Your task to perform on an android device: check google app version Image 0: 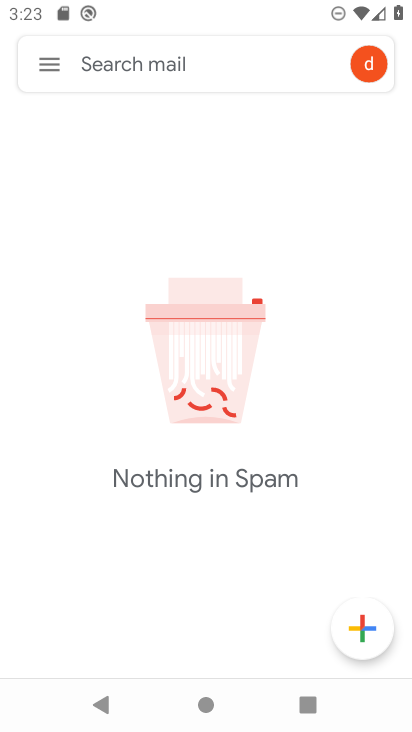
Step 0: press home button
Your task to perform on an android device: check google app version Image 1: 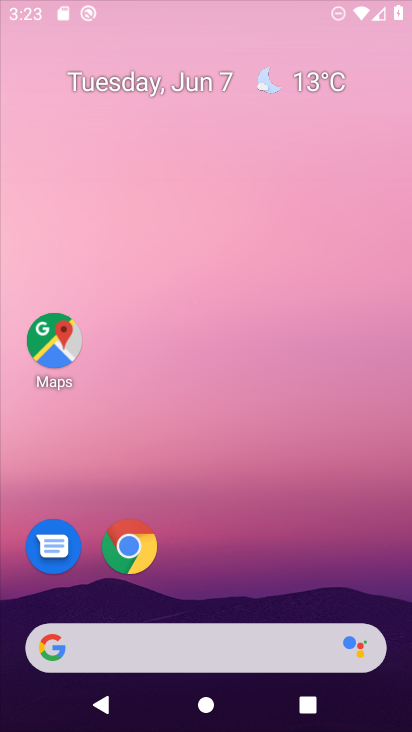
Step 1: drag from (29, 593) to (341, 202)
Your task to perform on an android device: check google app version Image 2: 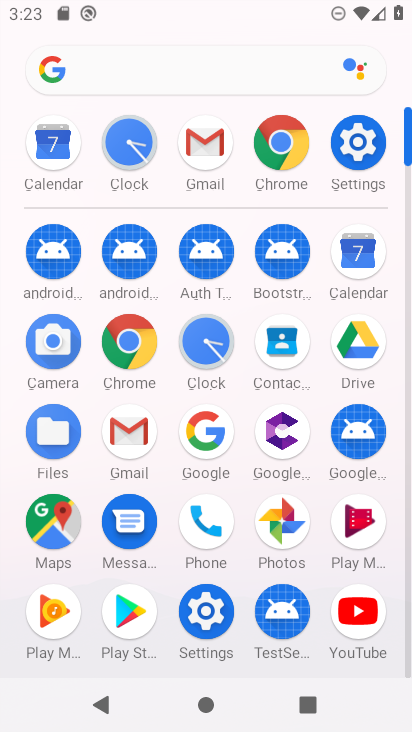
Step 2: click (291, 359)
Your task to perform on an android device: check google app version Image 3: 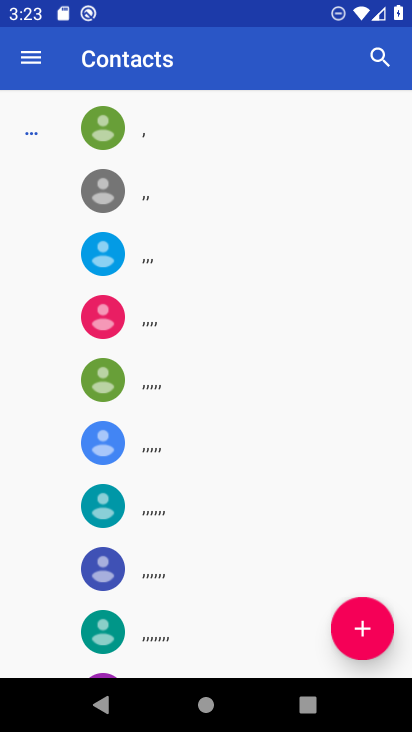
Step 3: press home button
Your task to perform on an android device: check google app version Image 4: 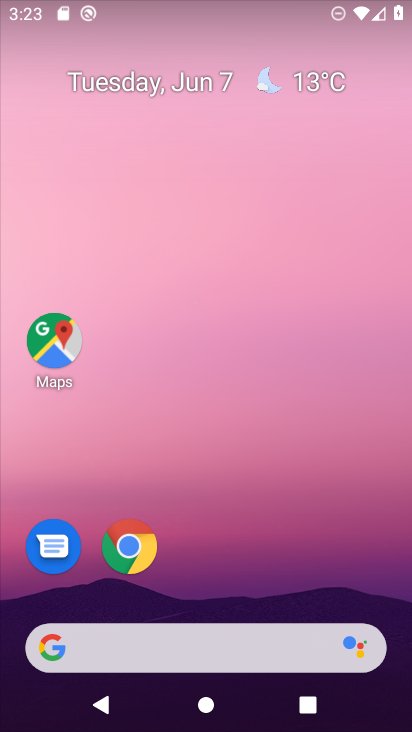
Step 4: drag from (22, 603) to (243, 150)
Your task to perform on an android device: check google app version Image 5: 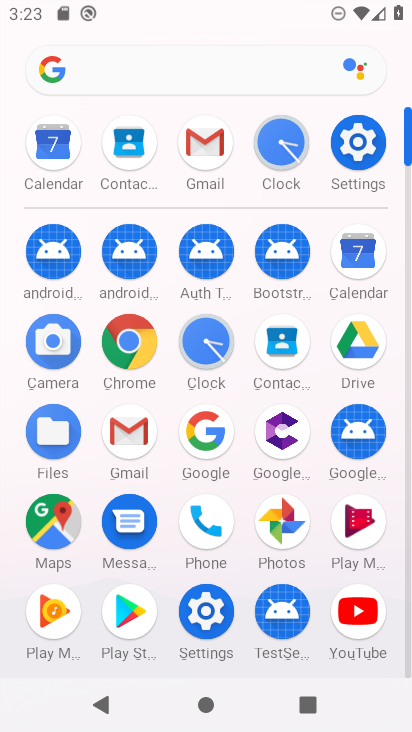
Step 5: click (263, 617)
Your task to perform on an android device: check google app version Image 6: 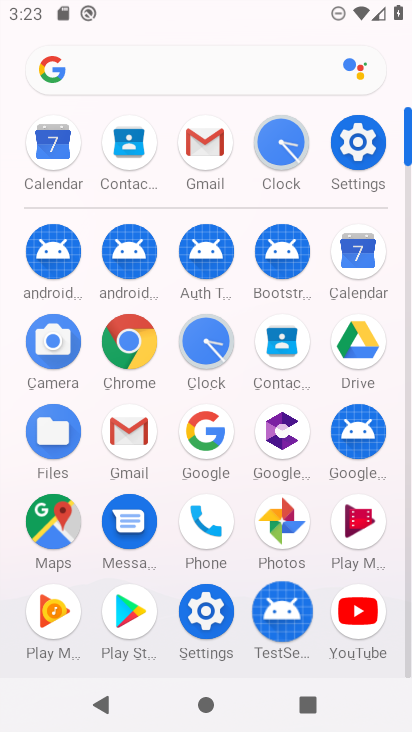
Step 6: click (258, 388)
Your task to perform on an android device: check google app version Image 7: 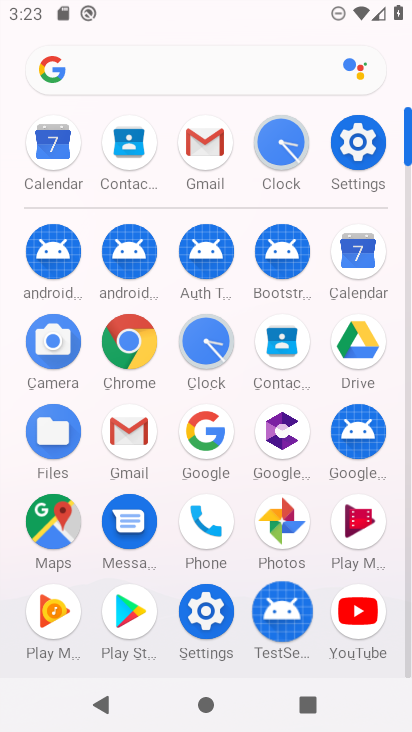
Step 7: click (355, 436)
Your task to perform on an android device: check google app version Image 8: 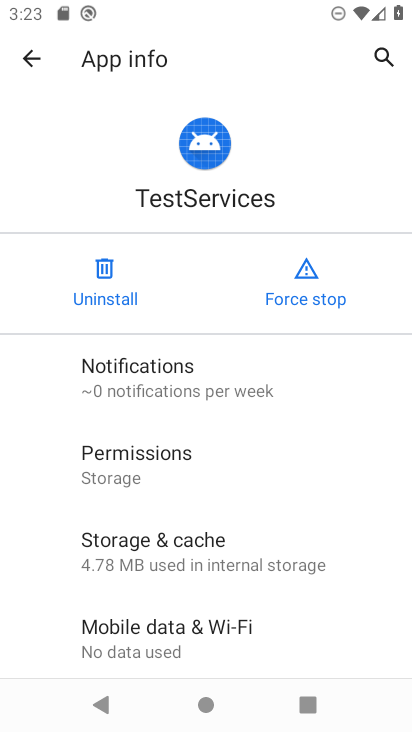
Step 8: drag from (14, 575) to (269, 188)
Your task to perform on an android device: check google app version Image 9: 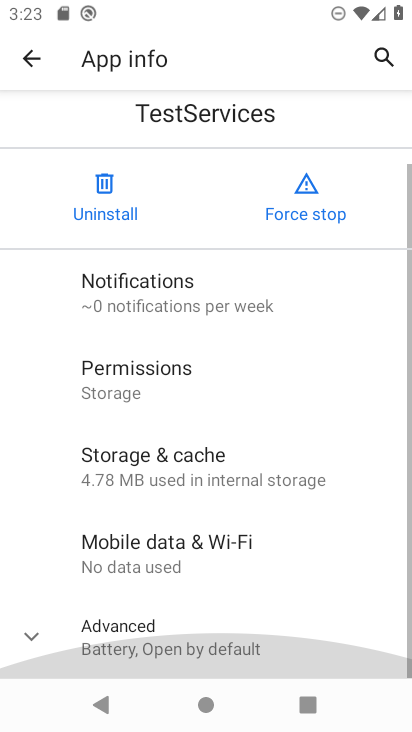
Step 9: click (295, 119)
Your task to perform on an android device: check google app version Image 10: 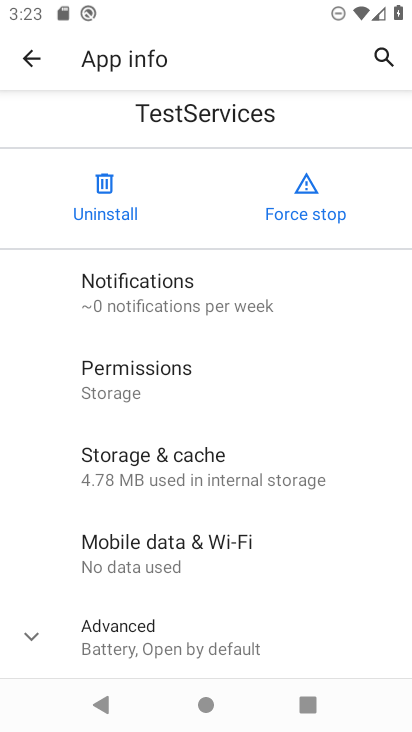
Step 10: drag from (45, 646) to (353, 166)
Your task to perform on an android device: check google app version Image 11: 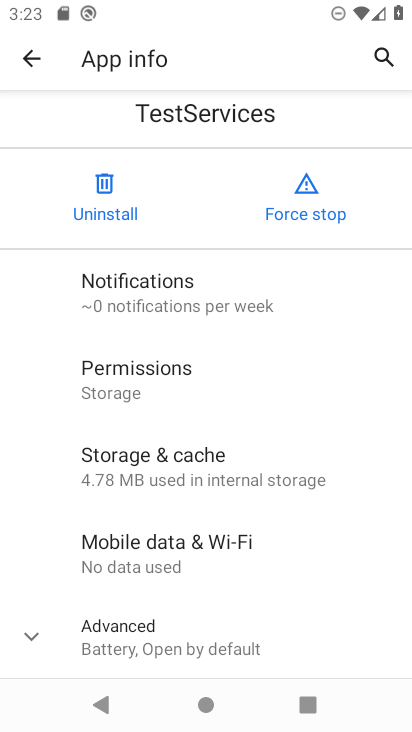
Step 11: click (171, 651)
Your task to perform on an android device: check google app version Image 12: 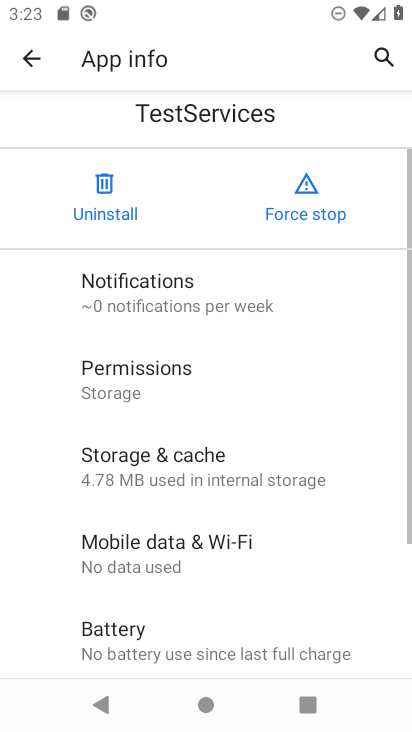
Step 12: task complete